Your task to perform on an android device: star an email in the gmail app Image 0: 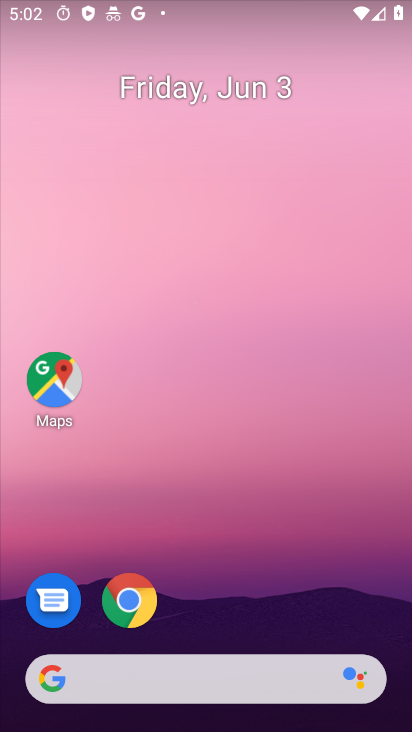
Step 0: drag from (396, 692) to (303, 69)
Your task to perform on an android device: star an email in the gmail app Image 1: 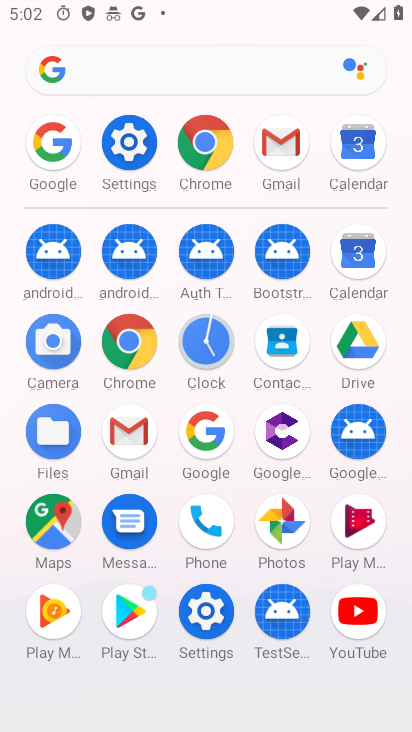
Step 1: click (274, 154)
Your task to perform on an android device: star an email in the gmail app Image 2: 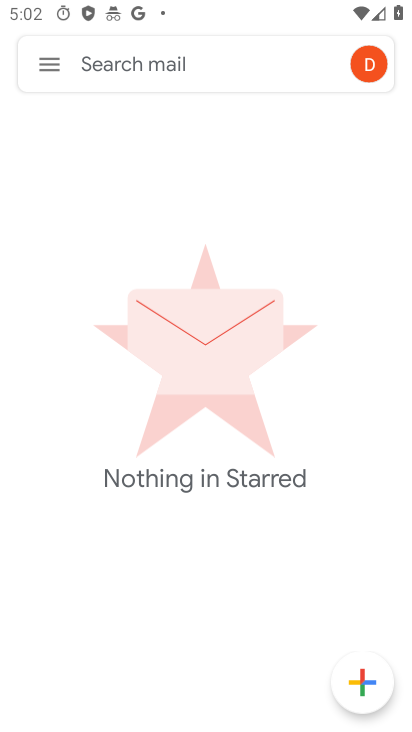
Step 2: click (43, 78)
Your task to perform on an android device: star an email in the gmail app Image 3: 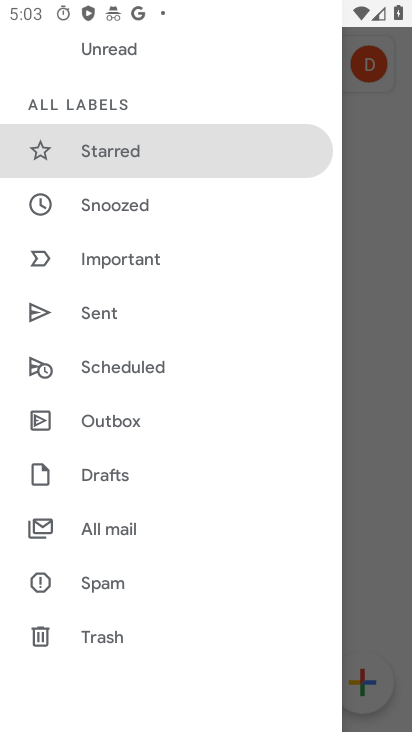
Step 3: drag from (207, 109) to (232, 571)
Your task to perform on an android device: star an email in the gmail app Image 4: 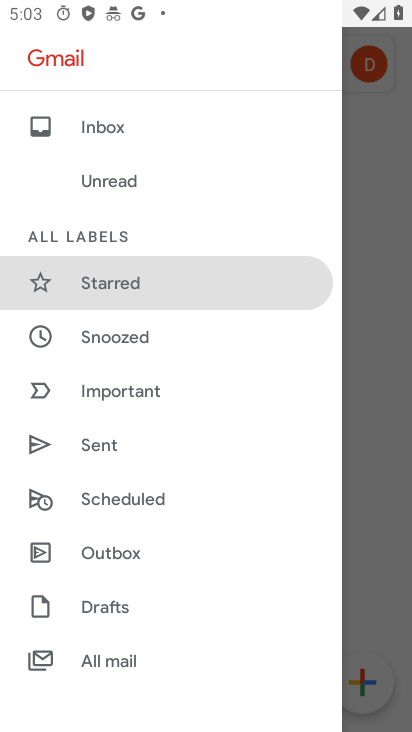
Step 4: click (82, 120)
Your task to perform on an android device: star an email in the gmail app Image 5: 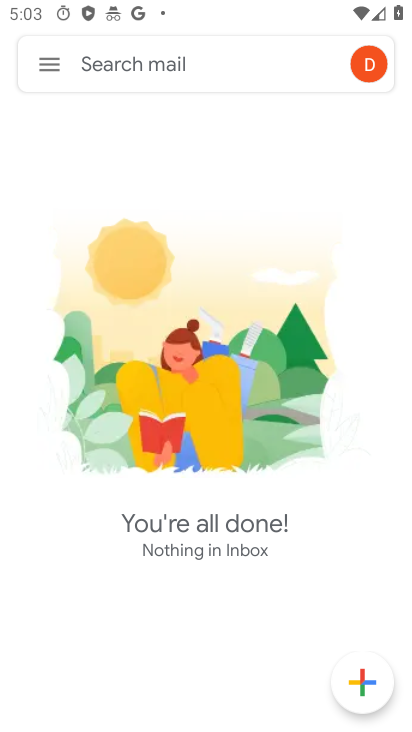
Step 5: task complete